Your task to perform on an android device: Go to accessibility settings Image 0: 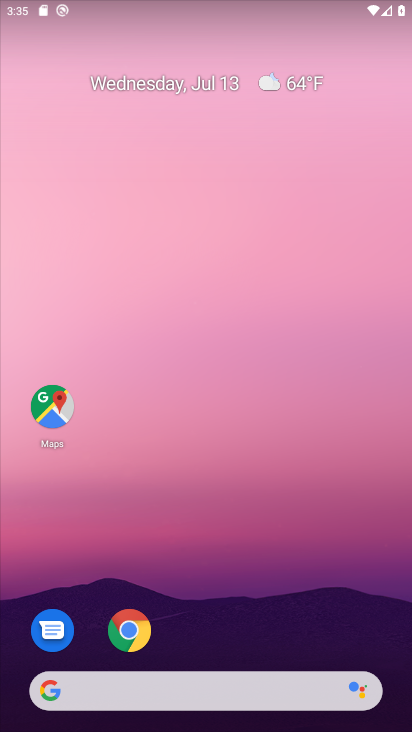
Step 0: drag from (287, 11) to (390, 666)
Your task to perform on an android device: Go to accessibility settings Image 1: 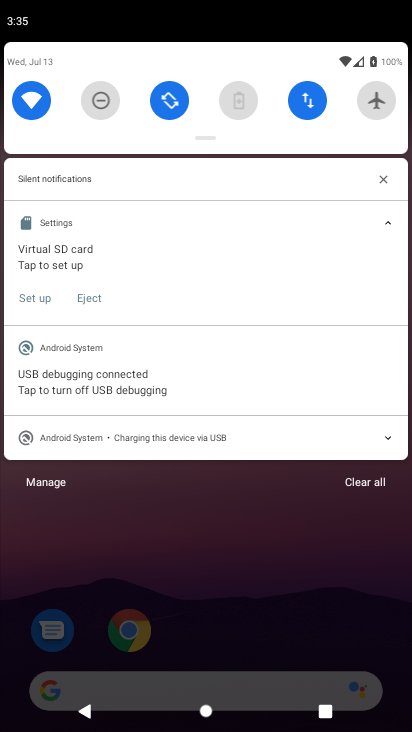
Step 1: drag from (206, 70) to (350, 728)
Your task to perform on an android device: Go to accessibility settings Image 2: 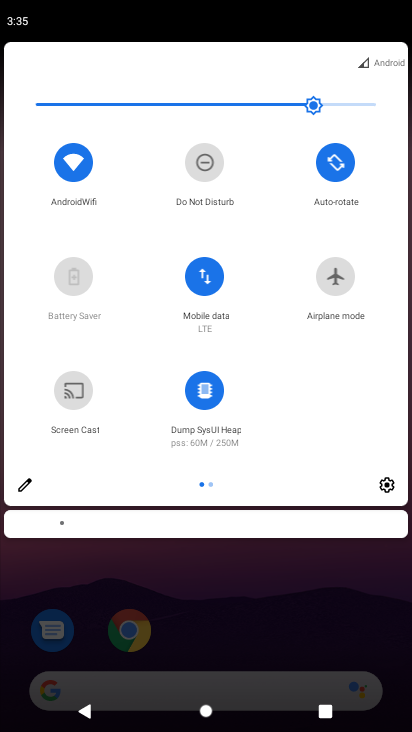
Step 2: click (386, 488)
Your task to perform on an android device: Go to accessibility settings Image 3: 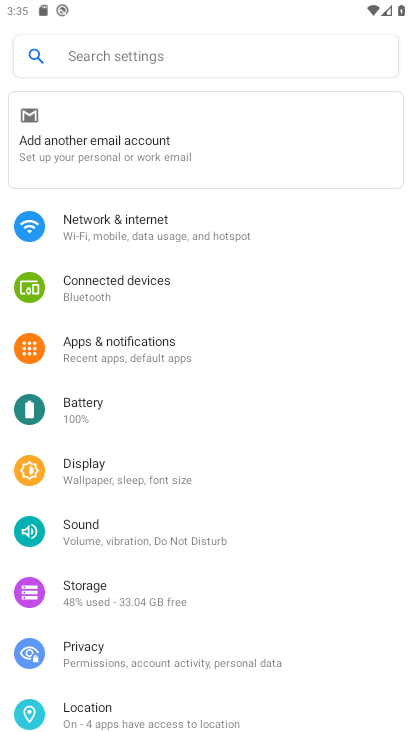
Step 3: drag from (106, 623) to (127, 76)
Your task to perform on an android device: Go to accessibility settings Image 4: 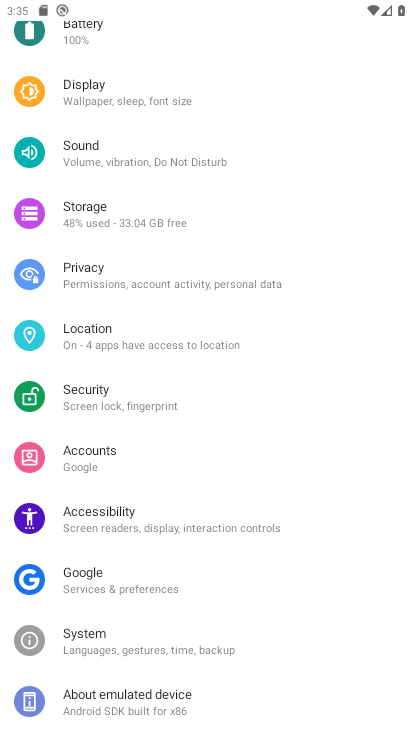
Step 4: click (109, 512)
Your task to perform on an android device: Go to accessibility settings Image 5: 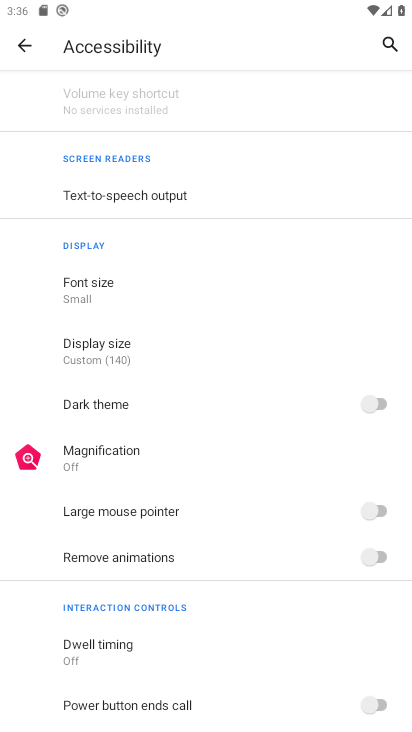
Step 5: task complete